Your task to perform on an android device: open wifi settings Image 0: 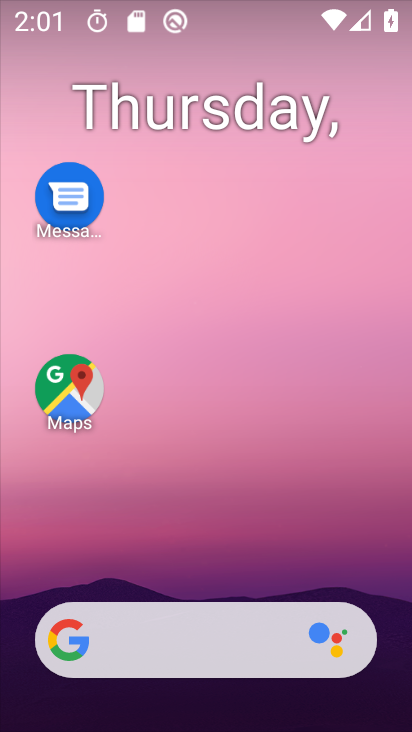
Step 0: drag from (214, 546) to (286, 97)
Your task to perform on an android device: open wifi settings Image 1: 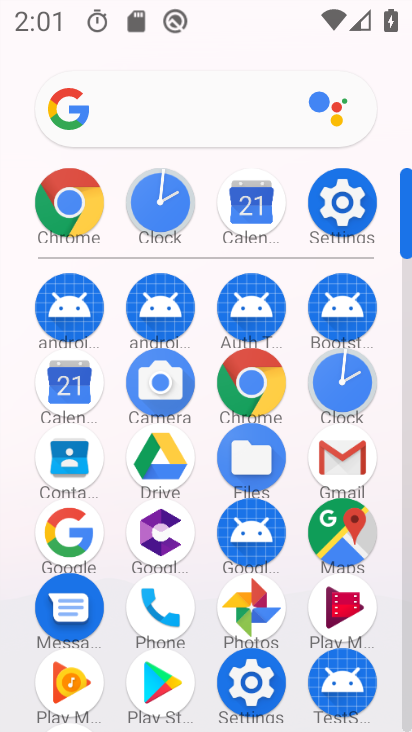
Step 1: click (338, 204)
Your task to perform on an android device: open wifi settings Image 2: 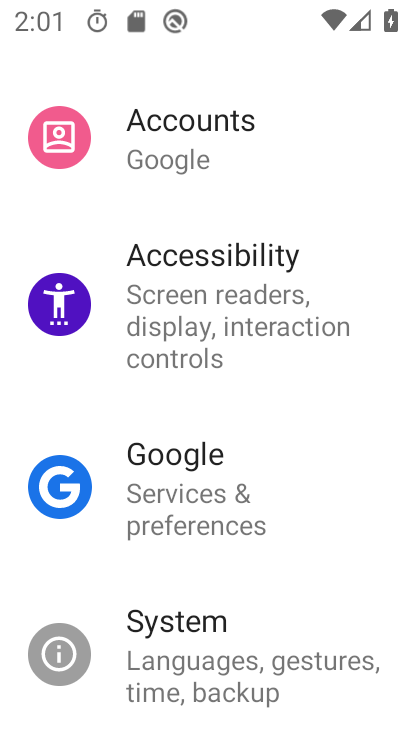
Step 2: drag from (235, 435) to (269, 271)
Your task to perform on an android device: open wifi settings Image 3: 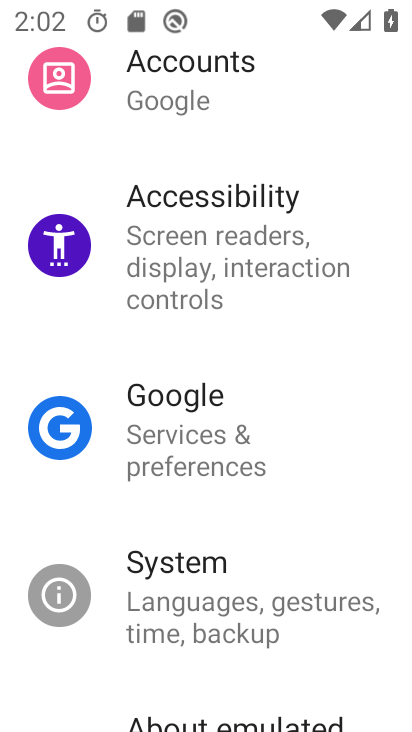
Step 3: drag from (209, 170) to (229, 493)
Your task to perform on an android device: open wifi settings Image 4: 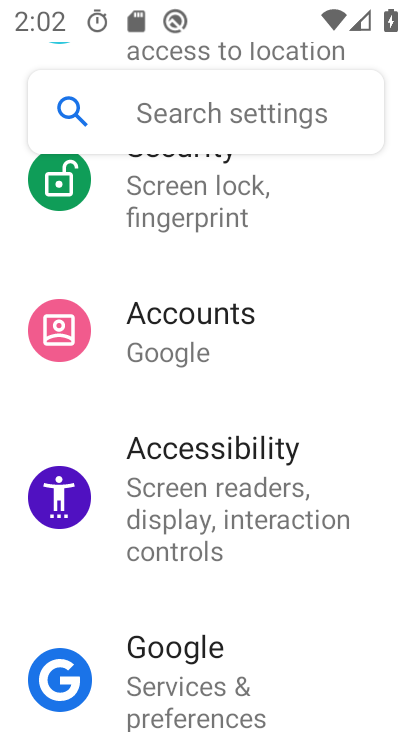
Step 4: drag from (232, 277) to (247, 440)
Your task to perform on an android device: open wifi settings Image 5: 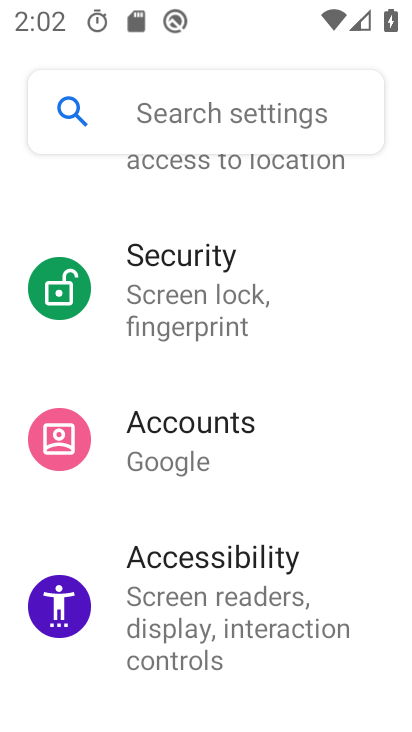
Step 5: drag from (209, 309) to (254, 635)
Your task to perform on an android device: open wifi settings Image 6: 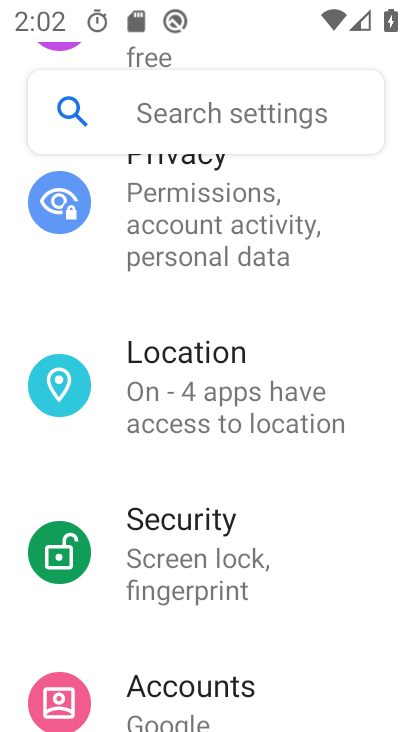
Step 6: drag from (197, 317) to (252, 609)
Your task to perform on an android device: open wifi settings Image 7: 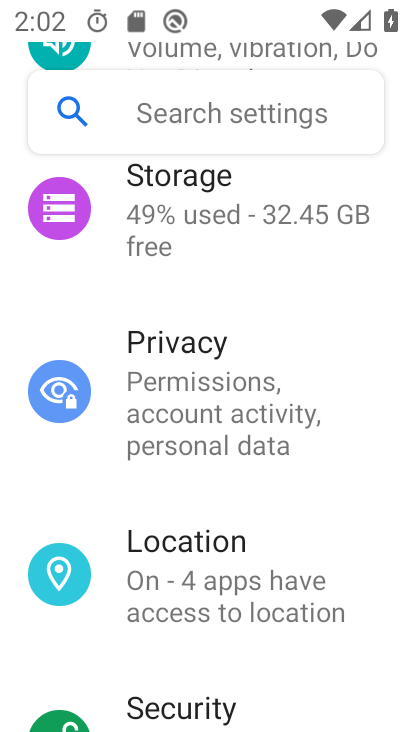
Step 7: drag from (240, 237) to (266, 573)
Your task to perform on an android device: open wifi settings Image 8: 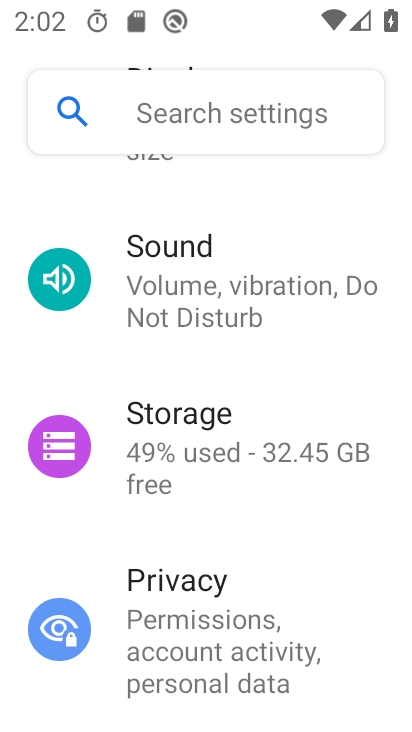
Step 8: drag from (254, 232) to (296, 443)
Your task to perform on an android device: open wifi settings Image 9: 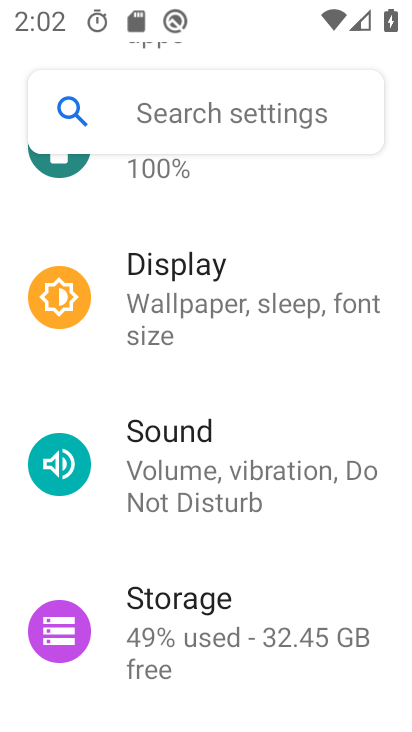
Step 9: drag from (220, 237) to (238, 467)
Your task to perform on an android device: open wifi settings Image 10: 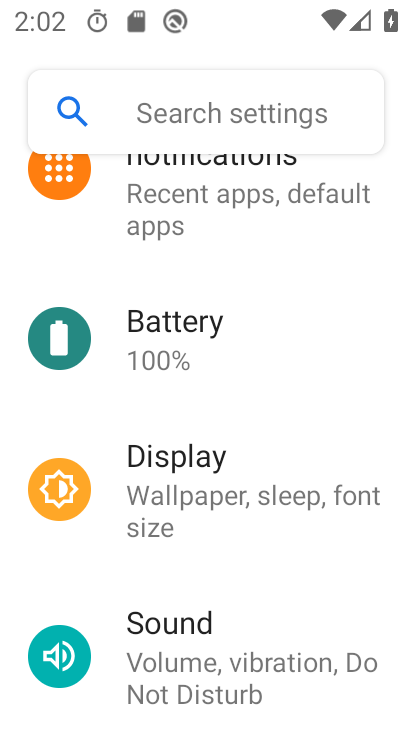
Step 10: drag from (195, 291) to (213, 497)
Your task to perform on an android device: open wifi settings Image 11: 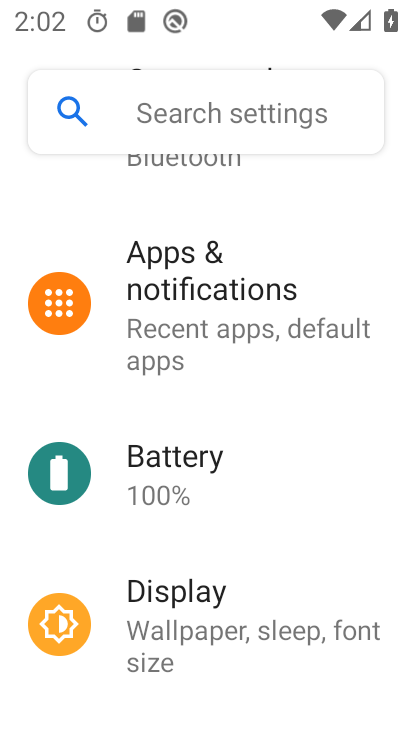
Step 11: drag from (205, 263) to (225, 641)
Your task to perform on an android device: open wifi settings Image 12: 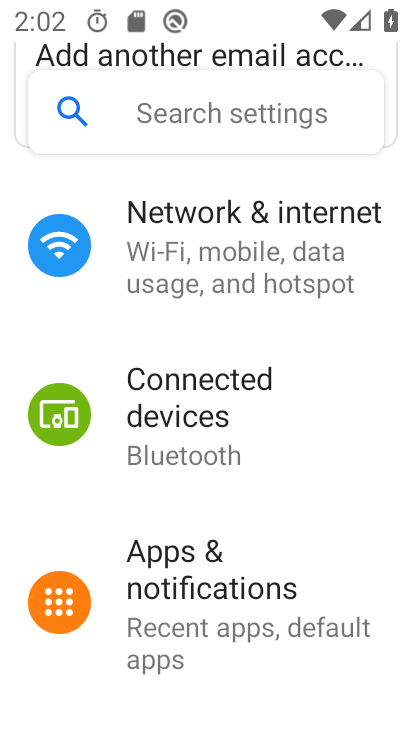
Step 12: click (230, 283)
Your task to perform on an android device: open wifi settings Image 13: 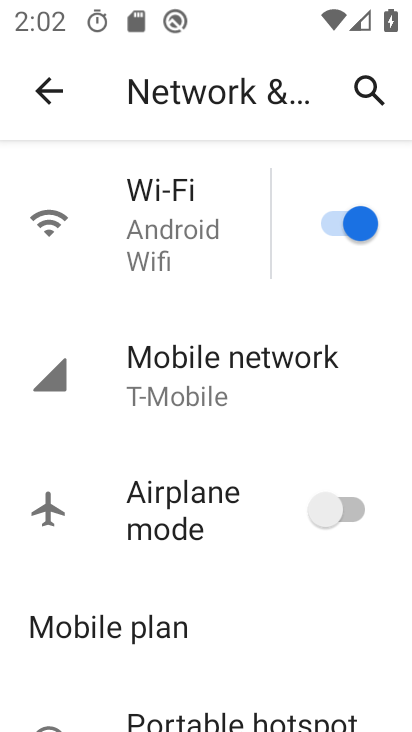
Step 13: click (167, 225)
Your task to perform on an android device: open wifi settings Image 14: 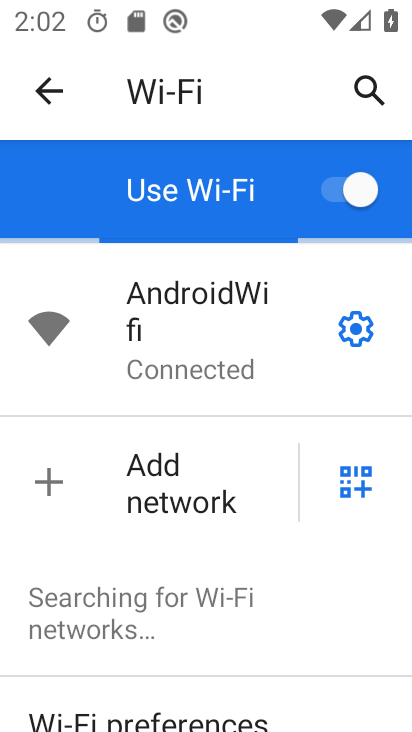
Step 14: task complete